Your task to perform on an android device: turn vacation reply on in the gmail app Image 0: 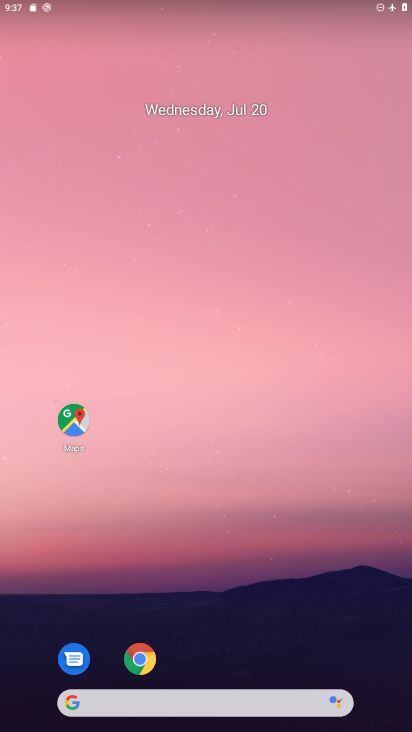
Step 0: drag from (236, 630) to (231, 18)
Your task to perform on an android device: turn vacation reply on in the gmail app Image 1: 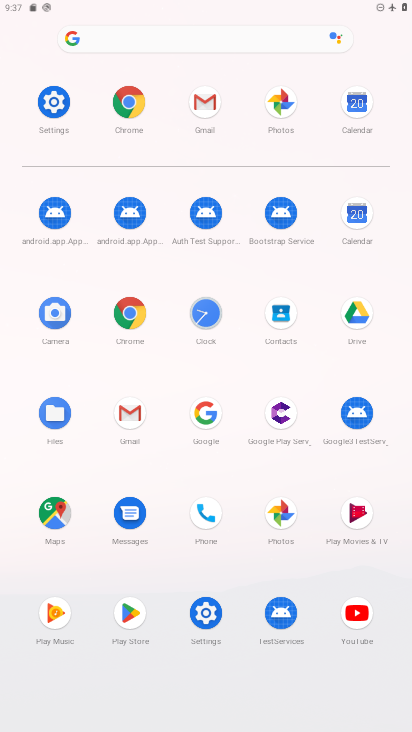
Step 1: click (209, 116)
Your task to perform on an android device: turn vacation reply on in the gmail app Image 2: 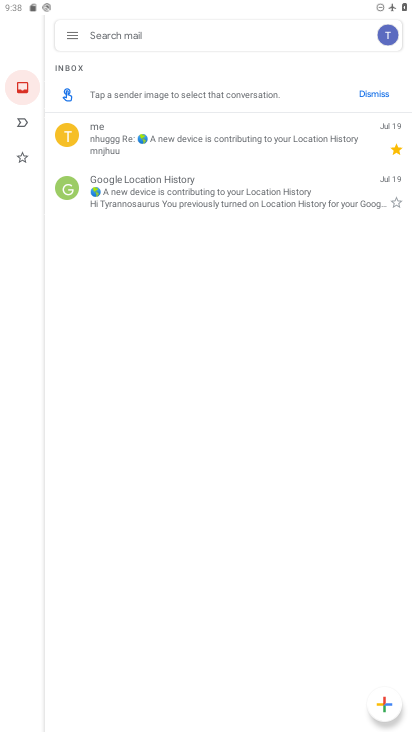
Step 2: click (61, 30)
Your task to perform on an android device: turn vacation reply on in the gmail app Image 3: 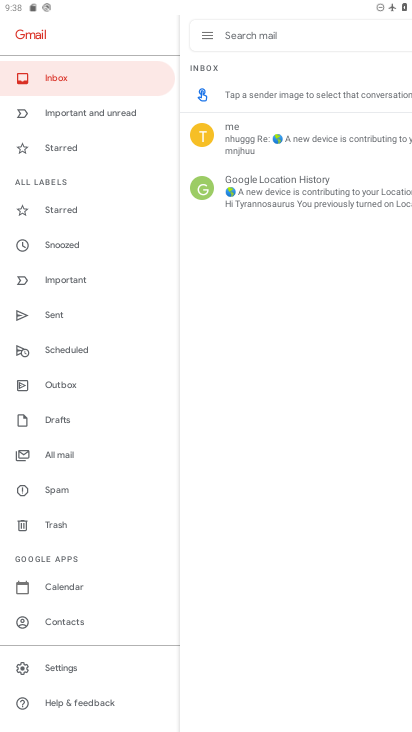
Step 3: click (88, 662)
Your task to perform on an android device: turn vacation reply on in the gmail app Image 4: 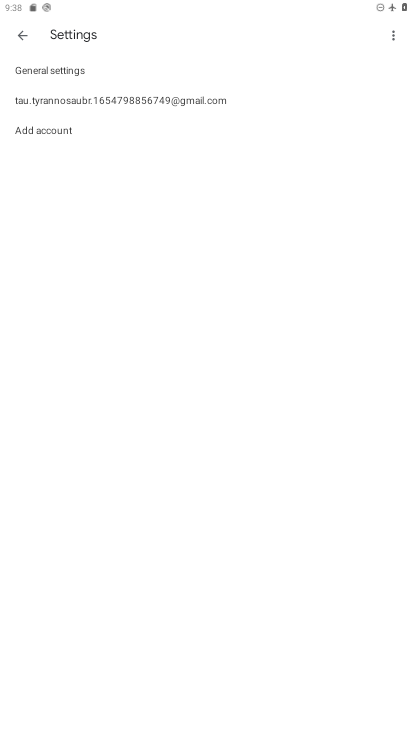
Step 4: click (25, 99)
Your task to perform on an android device: turn vacation reply on in the gmail app Image 5: 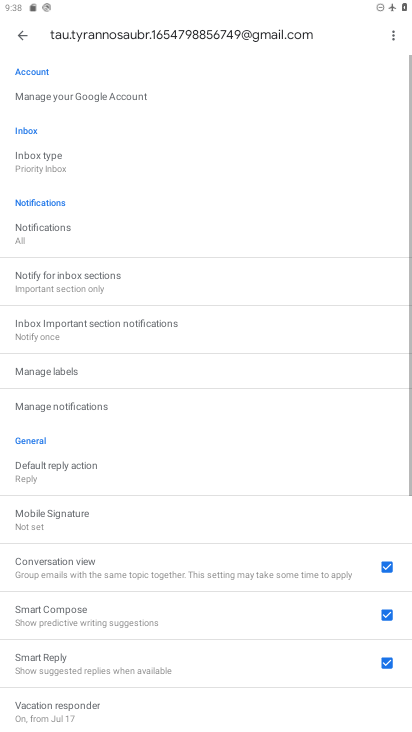
Step 5: drag from (220, 661) to (174, 113)
Your task to perform on an android device: turn vacation reply on in the gmail app Image 6: 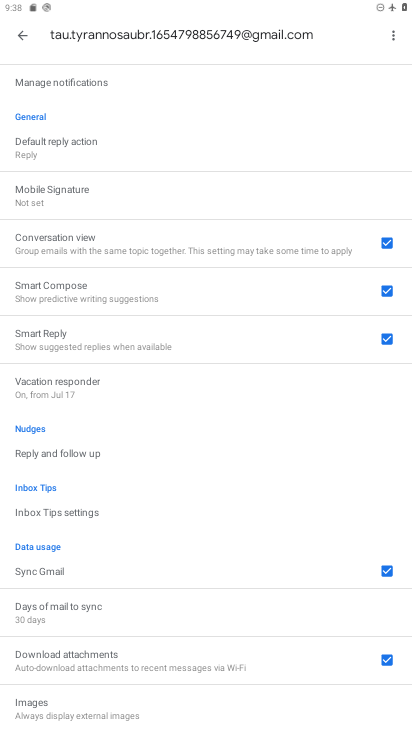
Step 6: drag from (179, 560) to (177, 391)
Your task to perform on an android device: turn vacation reply on in the gmail app Image 7: 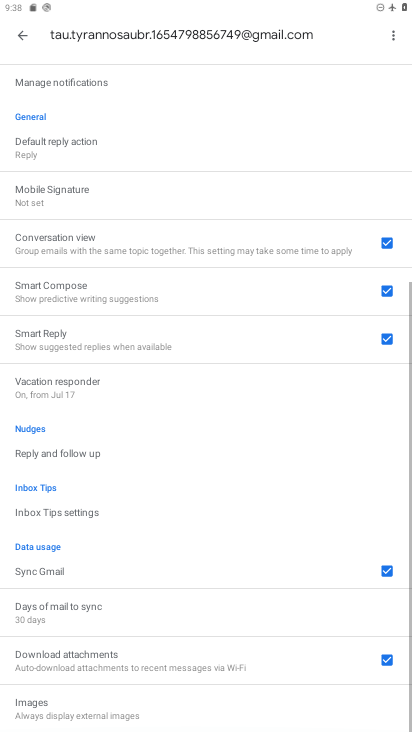
Step 7: click (94, 371)
Your task to perform on an android device: turn vacation reply on in the gmail app Image 8: 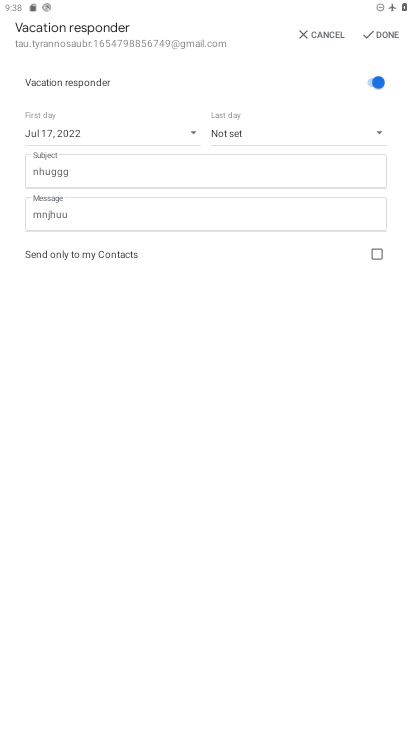
Step 8: task complete